Your task to perform on an android device: Show me productivity apps on the Play Store Image 0: 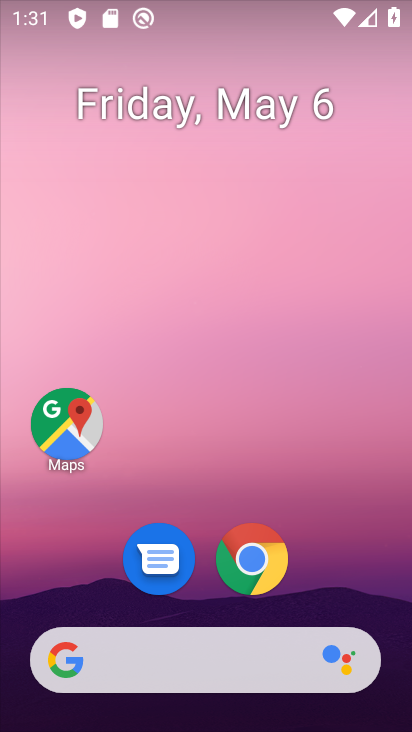
Step 0: click (268, 30)
Your task to perform on an android device: Show me productivity apps on the Play Store Image 1: 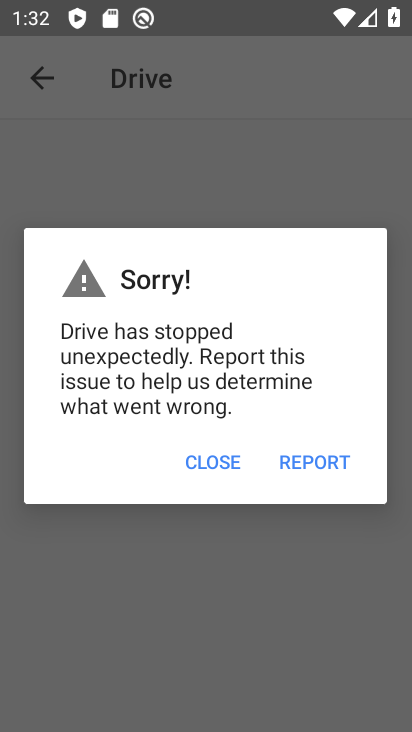
Step 1: press home button
Your task to perform on an android device: Show me productivity apps on the Play Store Image 2: 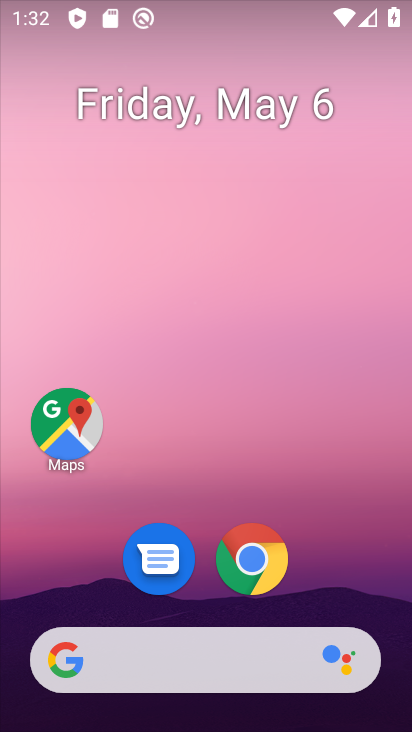
Step 2: drag from (308, 642) to (346, 2)
Your task to perform on an android device: Show me productivity apps on the Play Store Image 3: 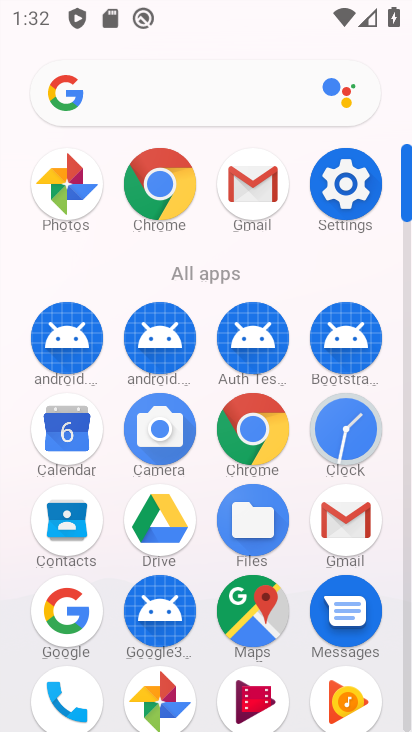
Step 3: drag from (279, 680) to (301, 166)
Your task to perform on an android device: Show me productivity apps on the Play Store Image 4: 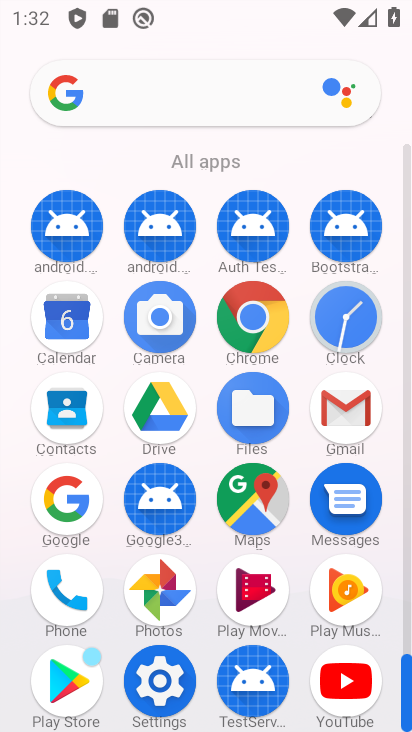
Step 4: click (81, 670)
Your task to perform on an android device: Show me productivity apps on the Play Store Image 5: 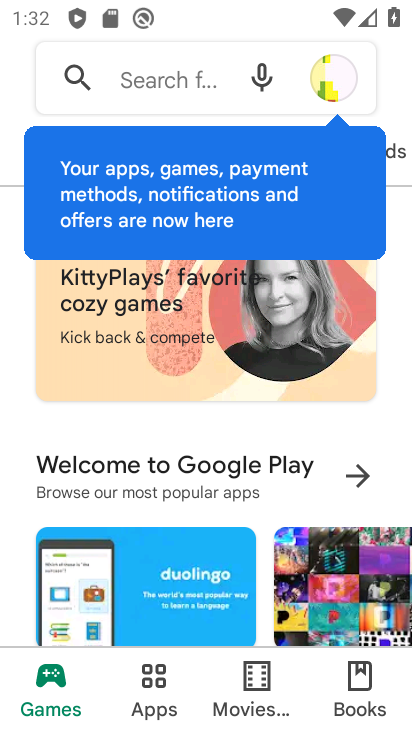
Step 5: click (149, 680)
Your task to perform on an android device: Show me productivity apps on the Play Store Image 6: 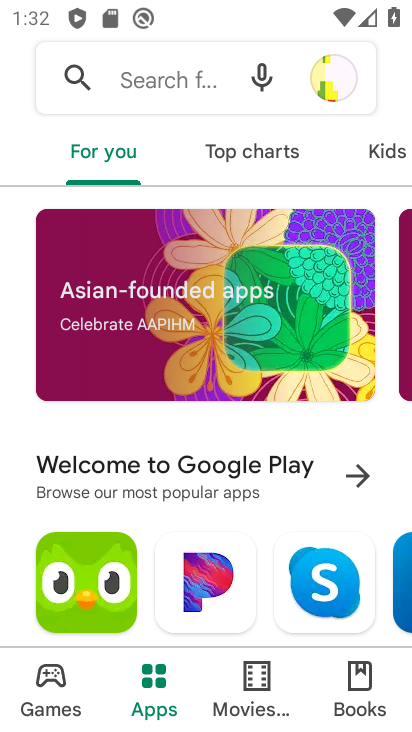
Step 6: task complete